Your task to perform on an android device: find snoozed emails in the gmail app Image 0: 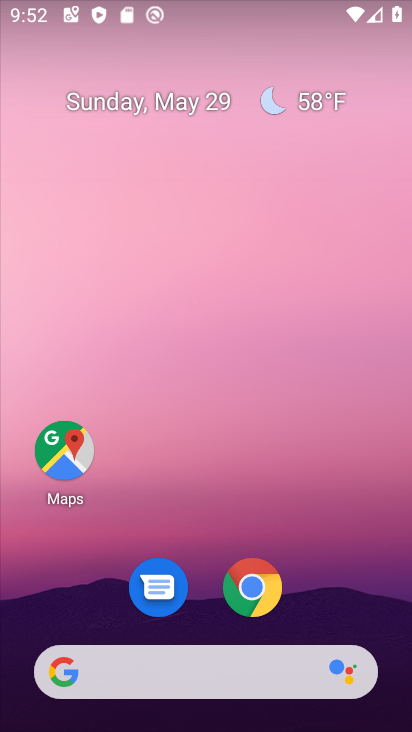
Step 0: drag from (389, 607) to (257, 14)
Your task to perform on an android device: find snoozed emails in the gmail app Image 1: 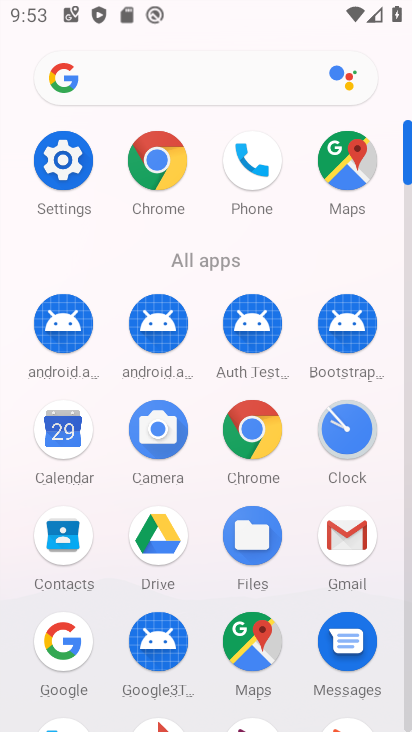
Step 1: click (353, 549)
Your task to perform on an android device: find snoozed emails in the gmail app Image 2: 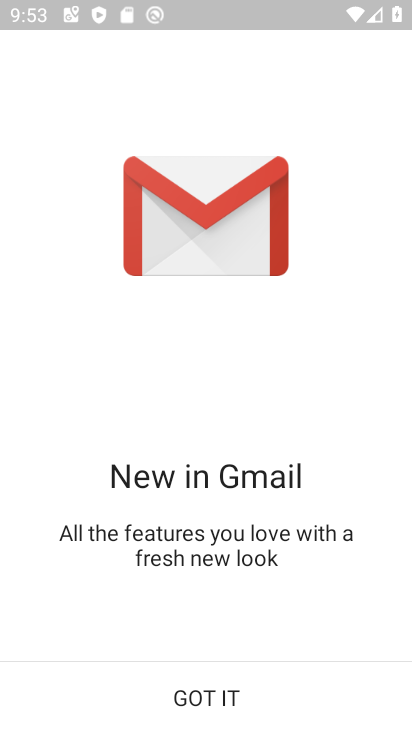
Step 2: click (213, 705)
Your task to perform on an android device: find snoozed emails in the gmail app Image 3: 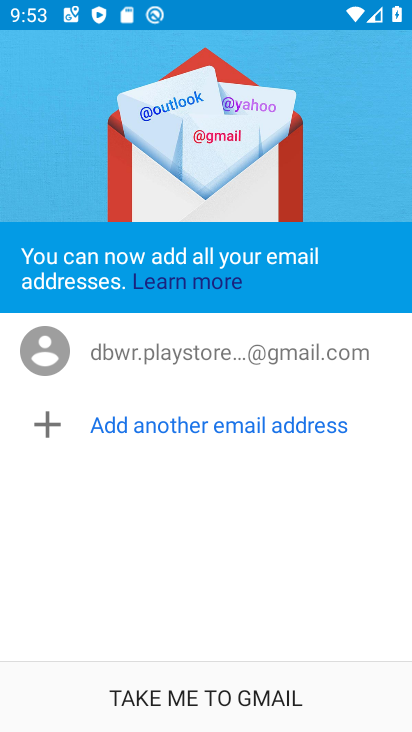
Step 3: click (213, 705)
Your task to perform on an android device: find snoozed emails in the gmail app Image 4: 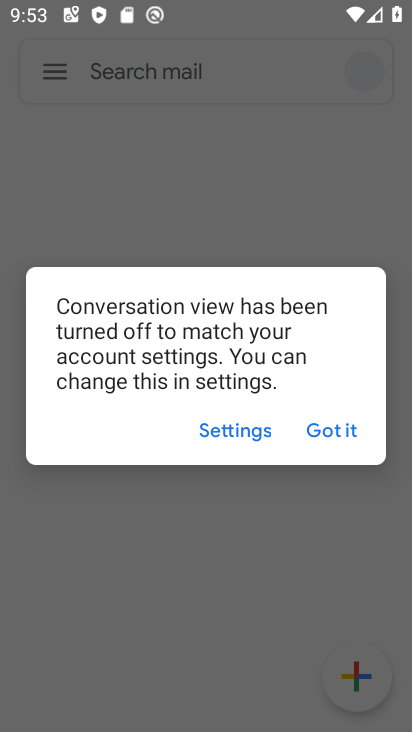
Step 4: click (330, 437)
Your task to perform on an android device: find snoozed emails in the gmail app Image 5: 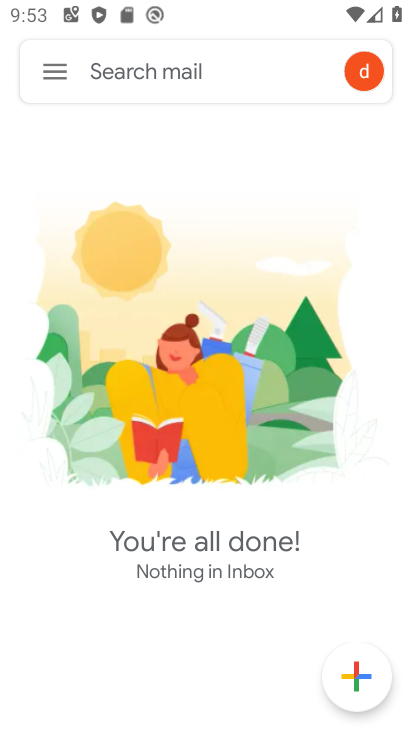
Step 5: click (50, 74)
Your task to perform on an android device: find snoozed emails in the gmail app Image 6: 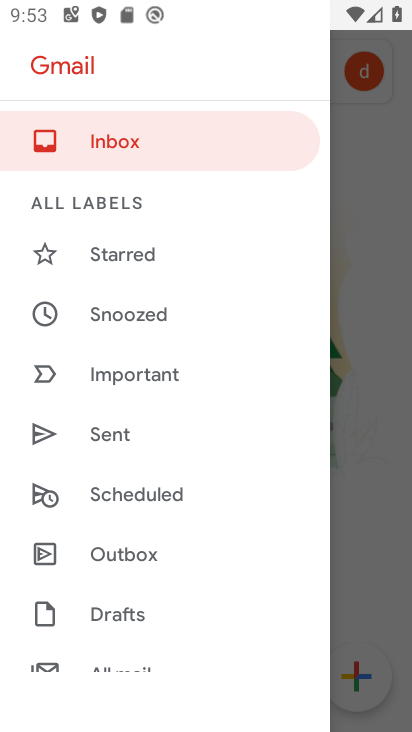
Step 6: click (116, 306)
Your task to perform on an android device: find snoozed emails in the gmail app Image 7: 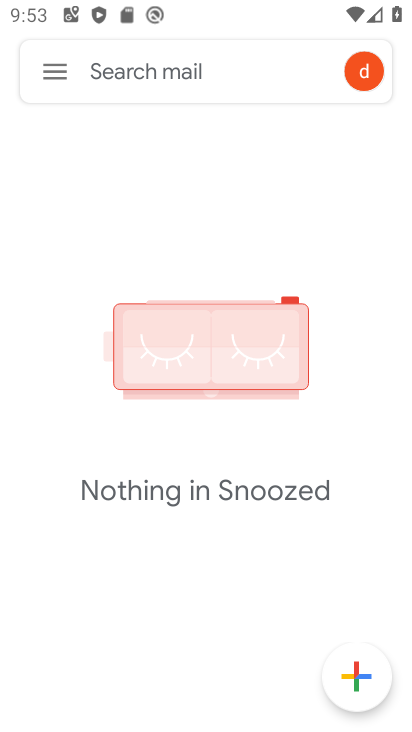
Step 7: task complete